Your task to perform on an android device: toggle sleep mode Image 0: 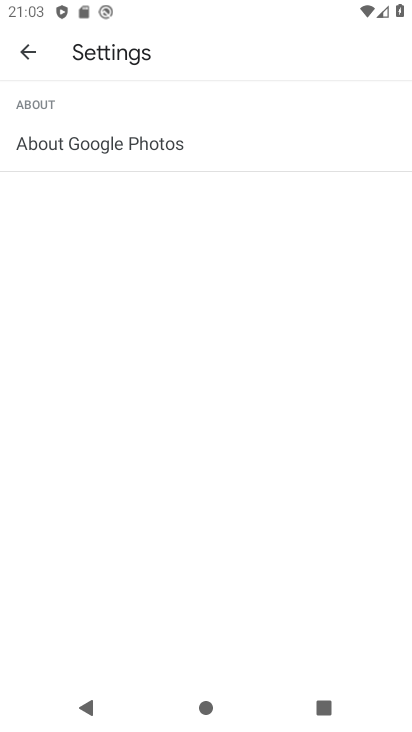
Step 0: press home button
Your task to perform on an android device: toggle sleep mode Image 1: 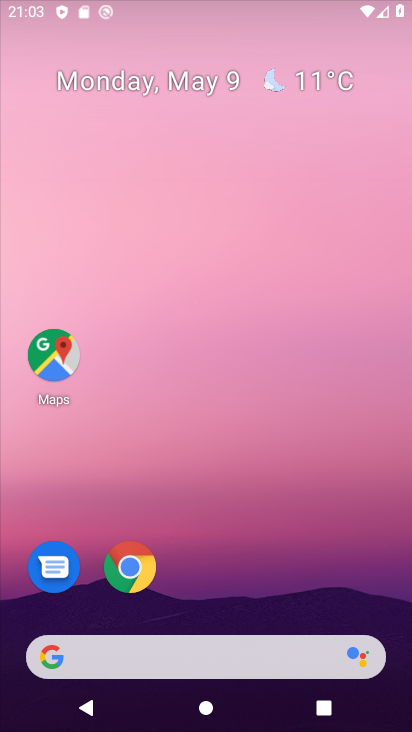
Step 1: drag from (261, 529) to (261, 18)
Your task to perform on an android device: toggle sleep mode Image 2: 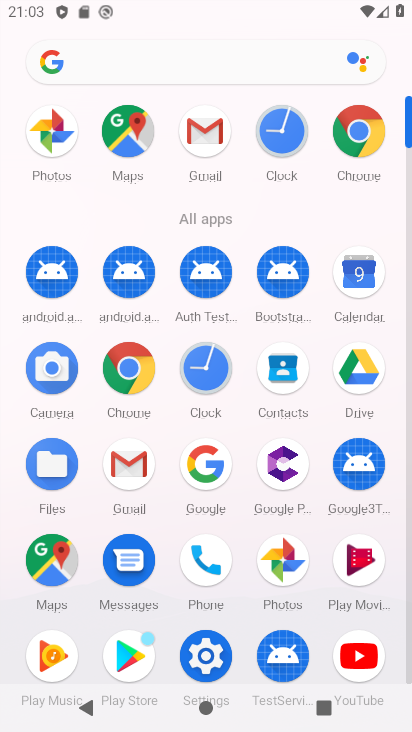
Step 2: click (208, 647)
Your task to perform on an android device: toggle sleep mode Image 3: 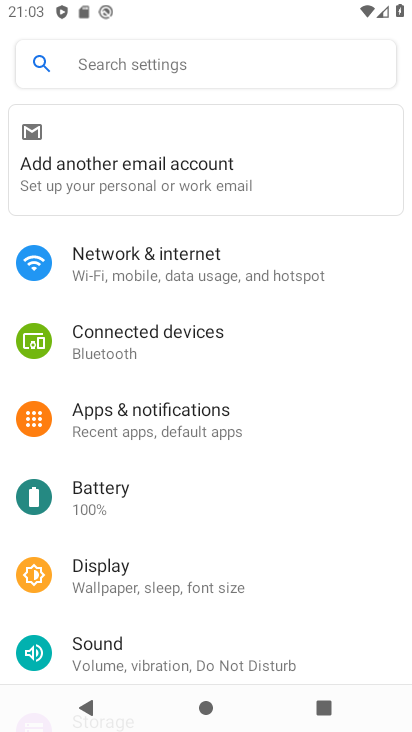
Step 3: click (172, 572)
Your task to perform on an android device: toggle sleep mode Image 4: 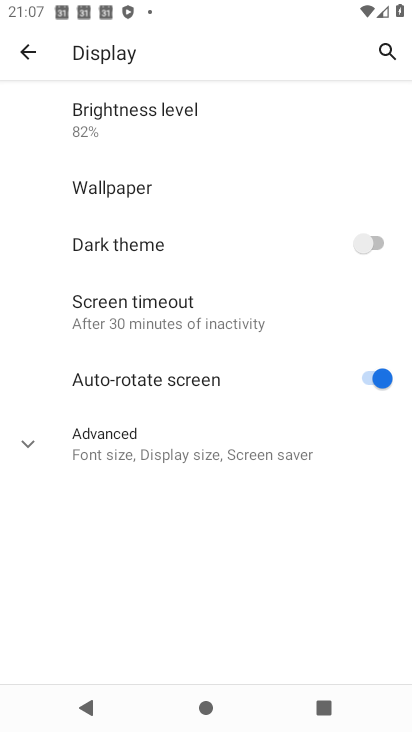
Step 4: task complete